Your task to perform on an android device: see sites visited before in the chrome app Image 0: 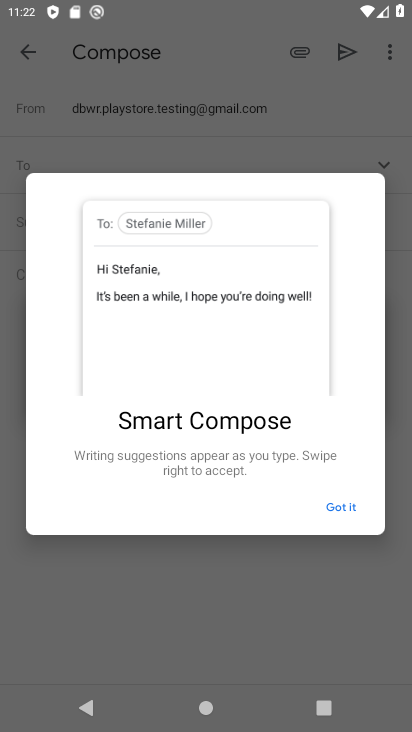
Step 0: press home button
Your task to perform on an android device: see sites visited before in the chrome app Image 1: 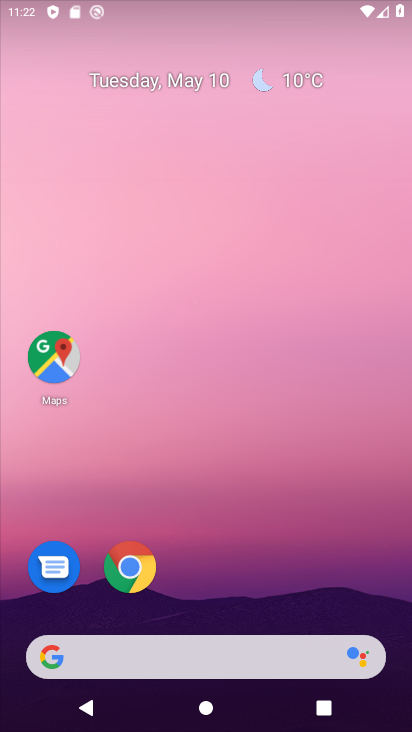
Step 1: drag from (342, 665) to (350, 50)
Your task to perform on an android device: see sites visited before in the chrome app Image 2: 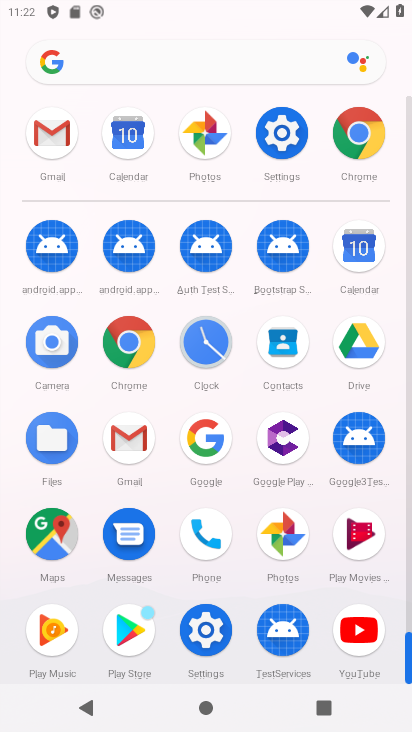
Step 2: click (124, 355)
Your task to perform on an android device: see sites visited before in the chrome app Image 3: 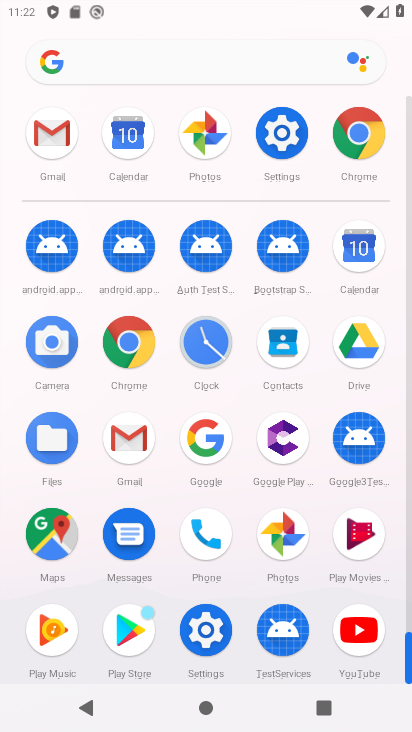
Step 3: click (130, 357)
Your task to perform on an android device: see sites visited before in the chrome app Image 4: 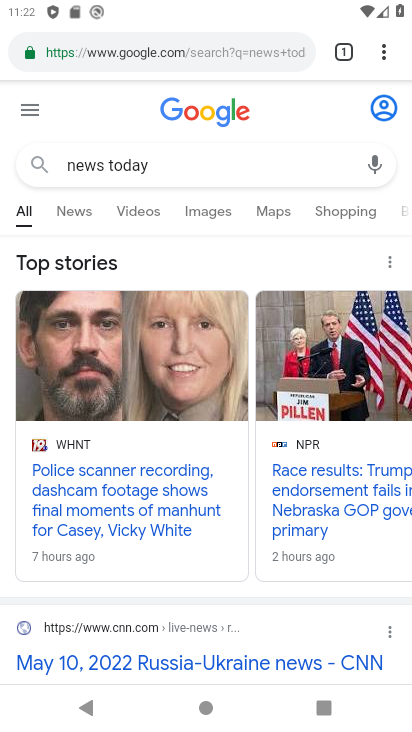
Step 4: task complete